Your task to perform on an android device: turn off data saver in the chrome app Image 0: 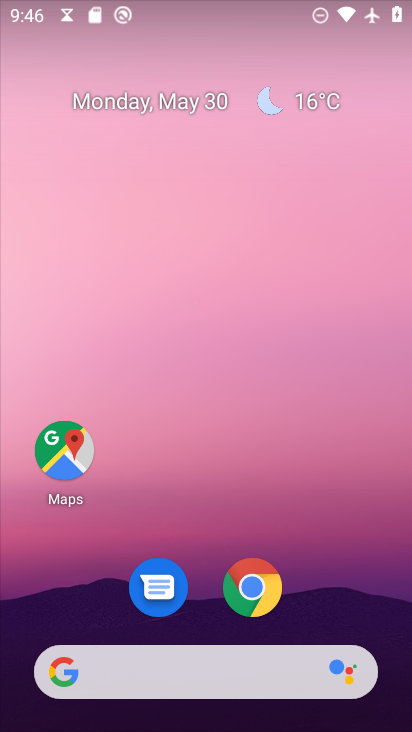
Step 0: press home button
Your task to perform on an android device: turn off data saver in the chrome app Image 1: 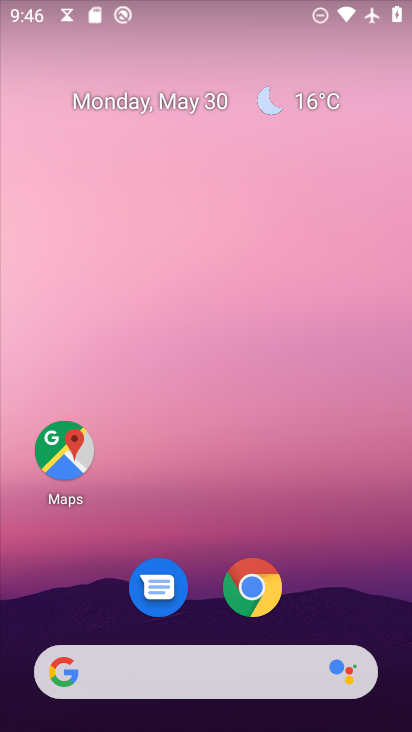
Step 1: click (253, 604)
Your task to perform on an android device: turn off data saver in the chrome app Image 2: 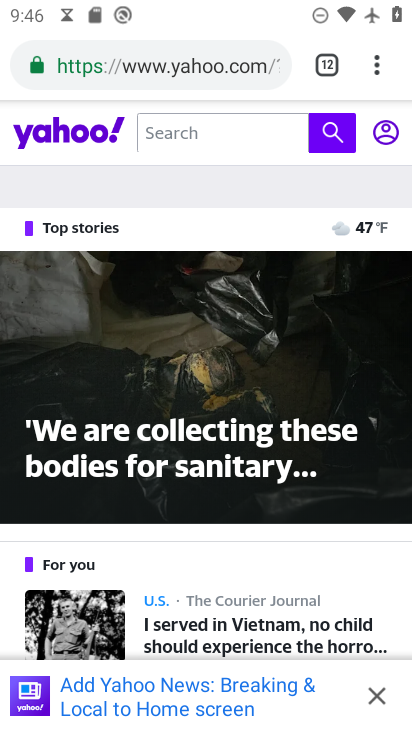
Step 2: drag from (375, 71) to (215, 641)
Your task to perform on an android device: turn off data saver in the chrome app Image 3: 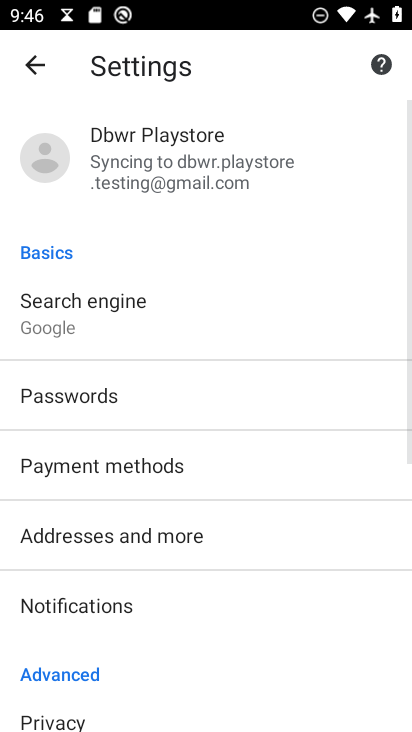
Step 3: drag from (209, 651) to (299, 211)
Your task to perform on an android device: turn off data saver in the chrome app Image 4: 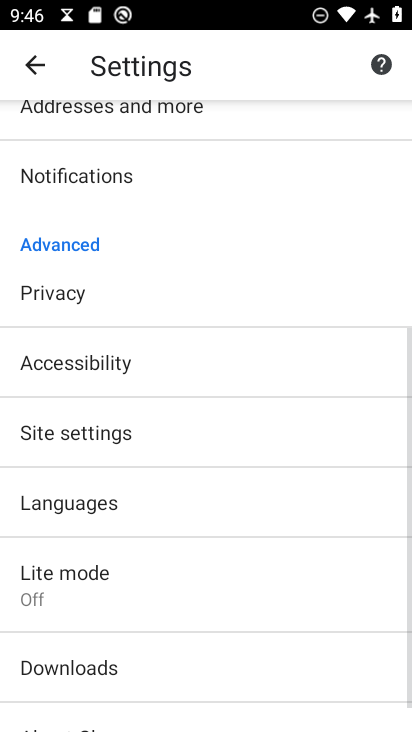
Step 4: click (79, 604)
Your task to perform on an android device: turn off data saver in the chrome app Image 5: 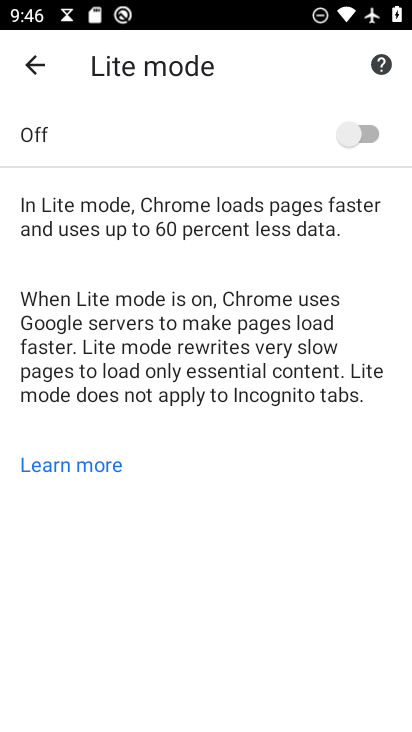
Step 5: task complete